Your task to perform on an android device: Open network settings Image 0: 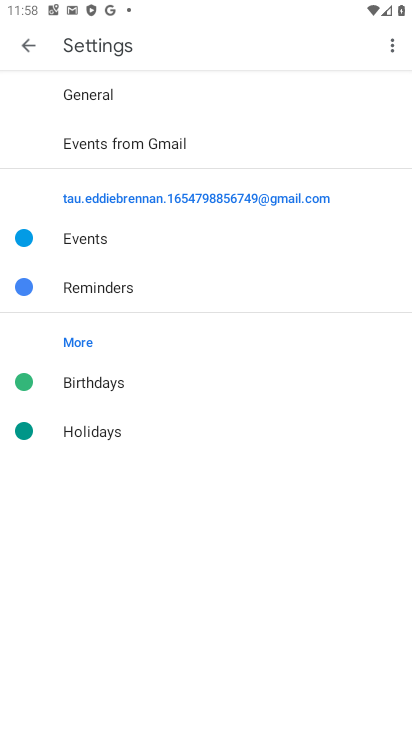
Step 0: press home button
Your task to perform on an android device: Open network settings Image 1: 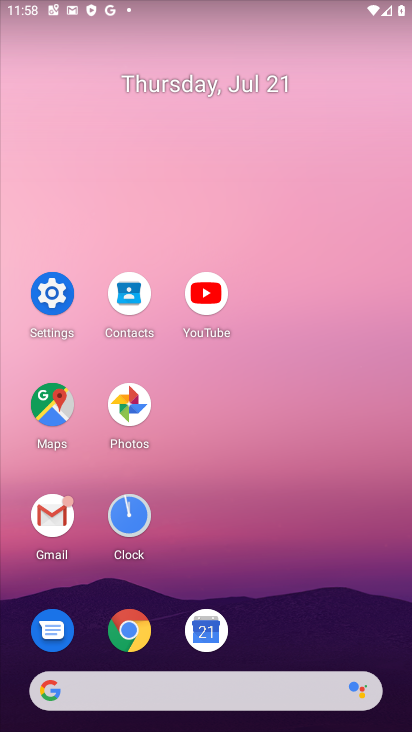
Step 1: click (55, 299)
Your task to perform on an android device: Open network settings Image 2: 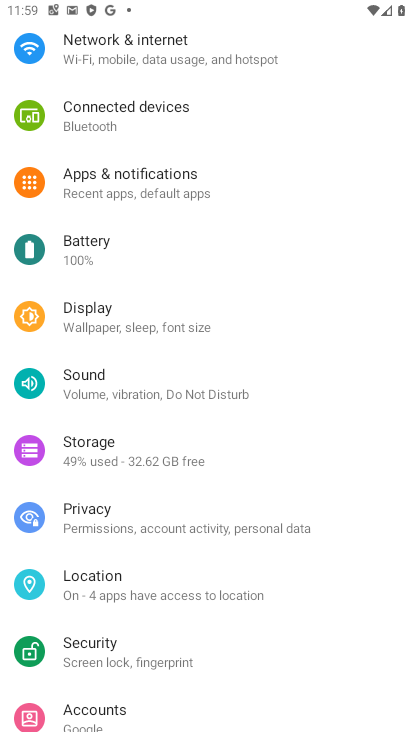
Step 2: click (125, 43)
Your task to perform on an android device: Open network settings Image 3: 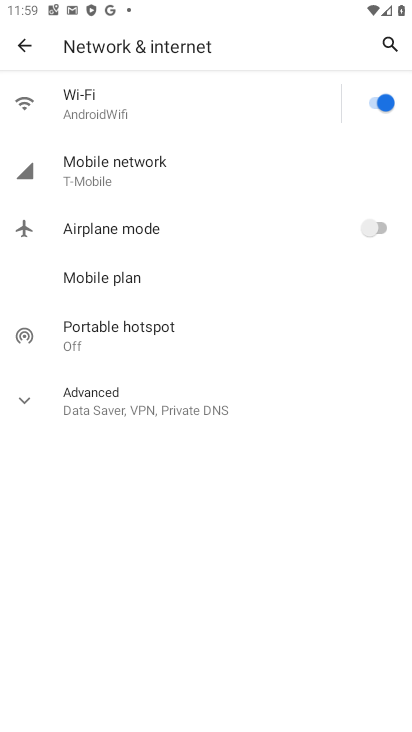
Step 3: task complete